Your task to perform on an android device: Search for seafood restaurants on Google Maps Image 0: 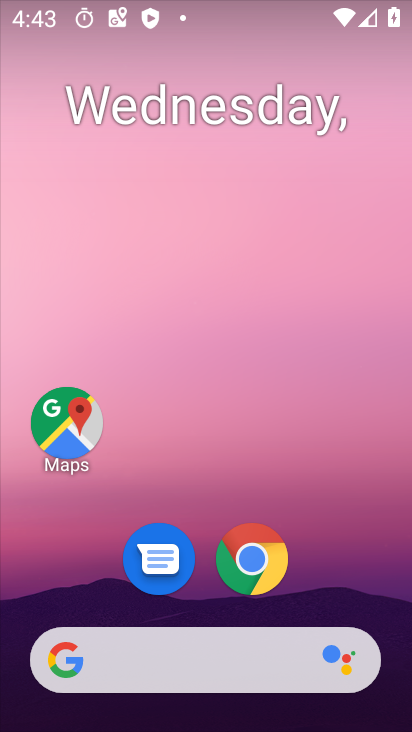
Step 0: click (73, 431)
Your task to perform on an android device: Search for seafood restaurants on Google Maps Image 1: 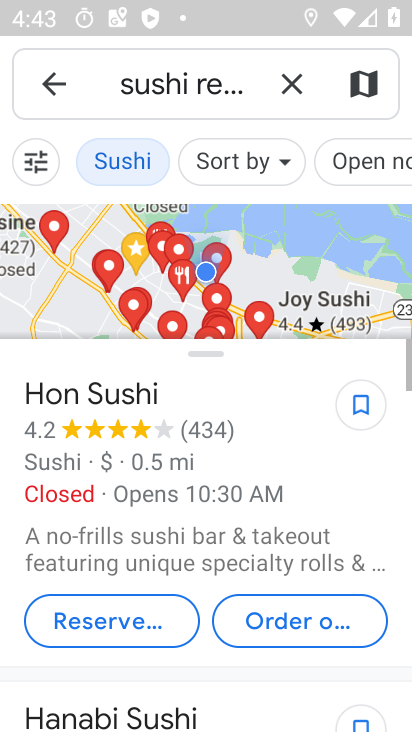
Step 1: click (292, 84)
Your task to perform on an android device: Search for seafood restaurants on Google Maps Image 2: 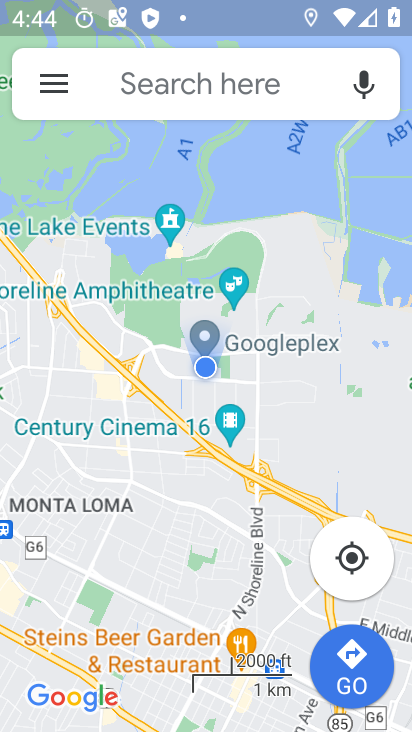
Step 2: click (169, 85)
Your task to perform on an android device: Search for seafood restaurants on Google Maps Image 3: 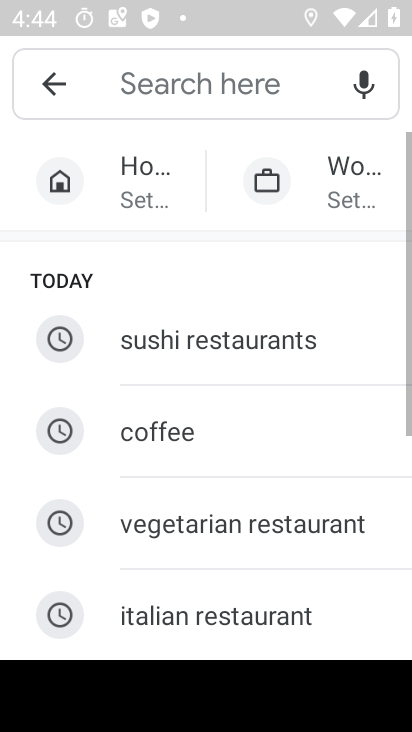
Step 3: drag from (258, 578) to (233, 201)
Your task to perform on an android device: Search for seafood restaurants on Google Maps Image 4: 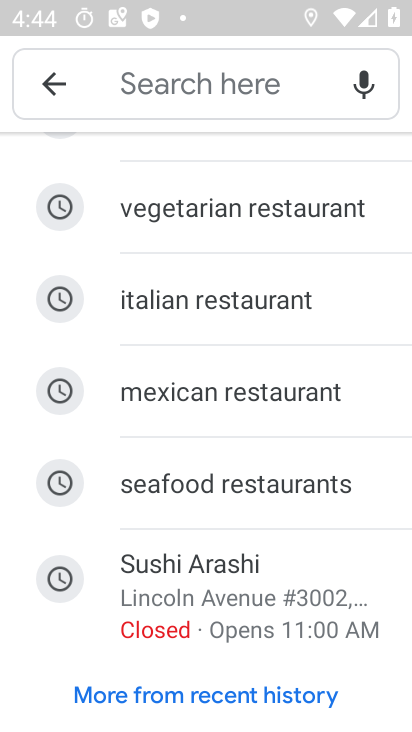
Step 4: click (240, 477)
Your task to perform on an android device: Search for seafood restaurants on Google Maps Image 5: 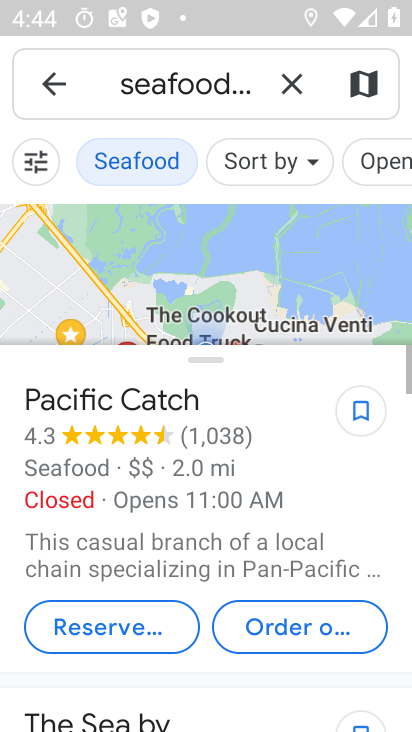
Step 5: task complete